Your task to perform on an android device: turn vacation reply on in the gmail app Image 0: 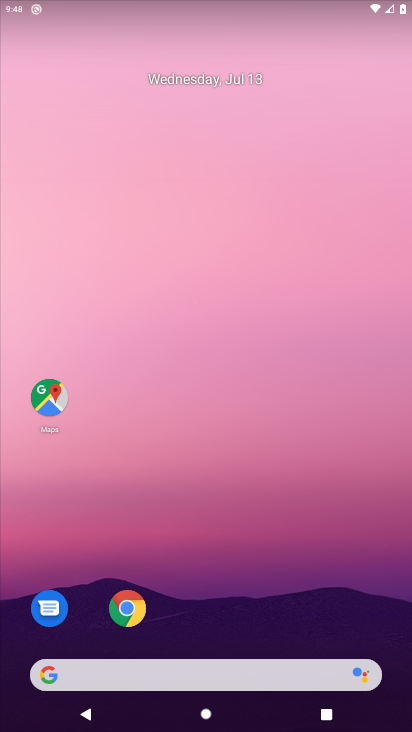
Step 0: drag from (50, 704) to (278, 50)
Your task to perform on an android device: turn vacation reply on in the gmail app Image 1: 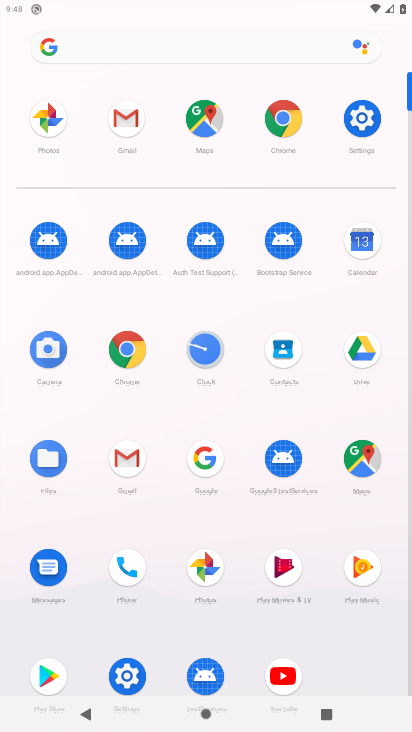
Step 1: click (135, 470)
Your task to perform on an android device: turn vacation reply on in the gmail app Image 2: 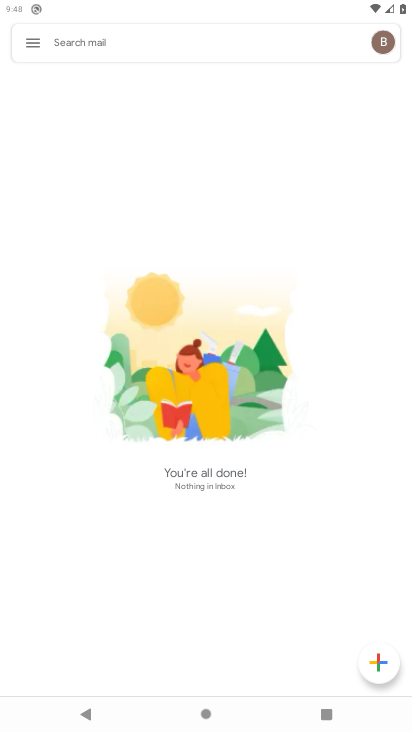
Step 2: click (34, 43)
Your task to perform on an android device: turn vacation reply on in the gmail app Image 3: 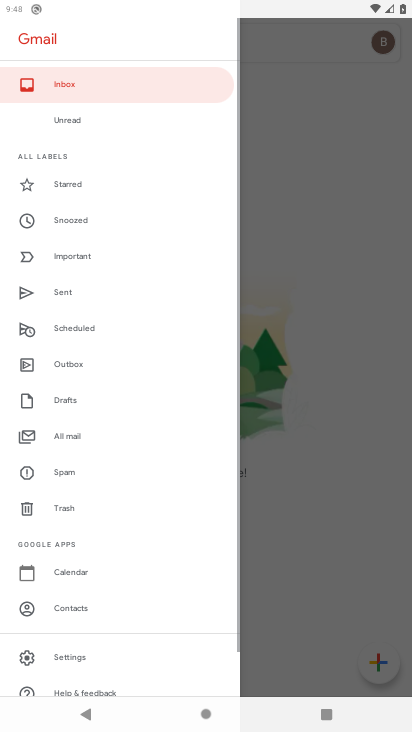
Step 3: click (83, 91)
Your task to perform on an android device: turn vacation reply on in the gmail app Image 4: 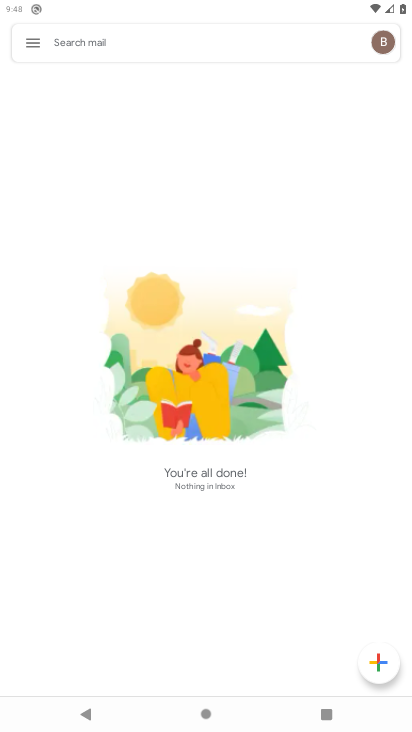
Step 4: task complete